Your task to perform on an android device: Go to Reddit.com Image 0: 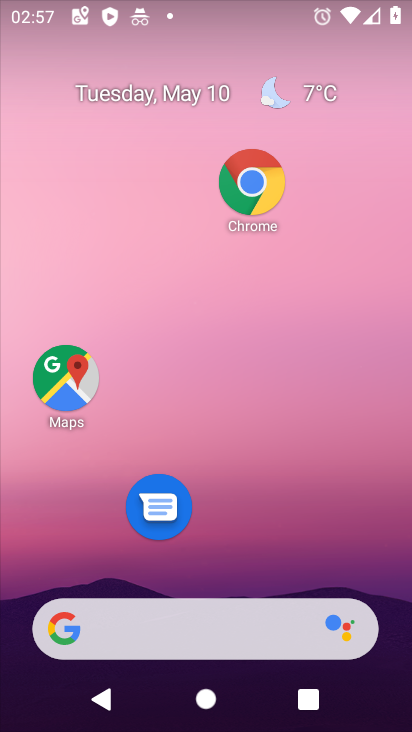
Step 0: click (278, 180)
Your task to perform on an android device: Go to Reddit.com Image 1: 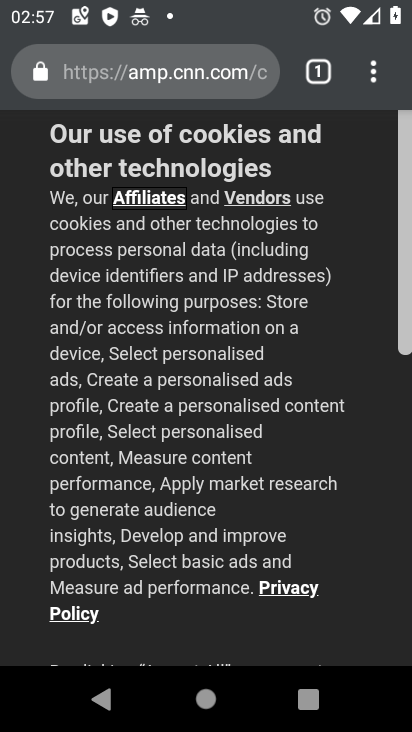
Step 1: click (230, 91)
Your task to perform on an android device: Go to Reddit.com Image 2: 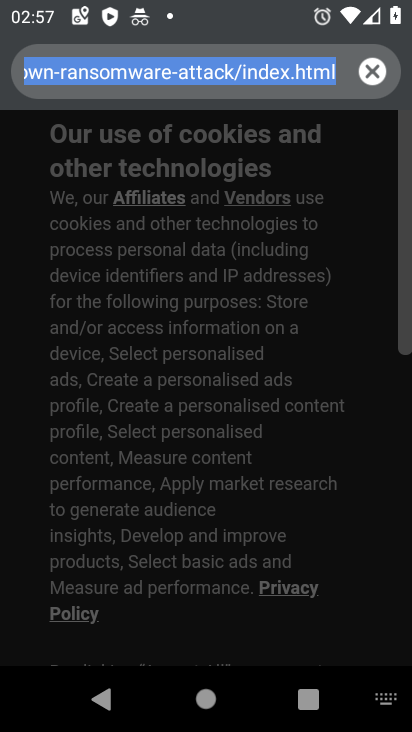
Step 2: type "reddit"
Your task to perform on an android device: Go to Reddit.com Image 3: 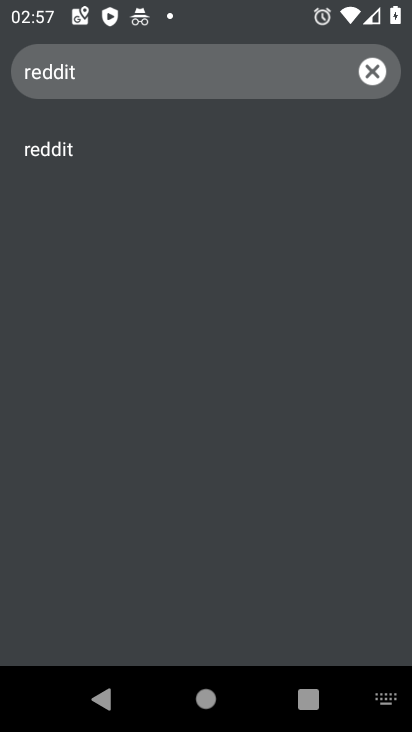
Step 3: click (198, 136)
Your task to perform on an android device: Go to Reddit.com Image 4: 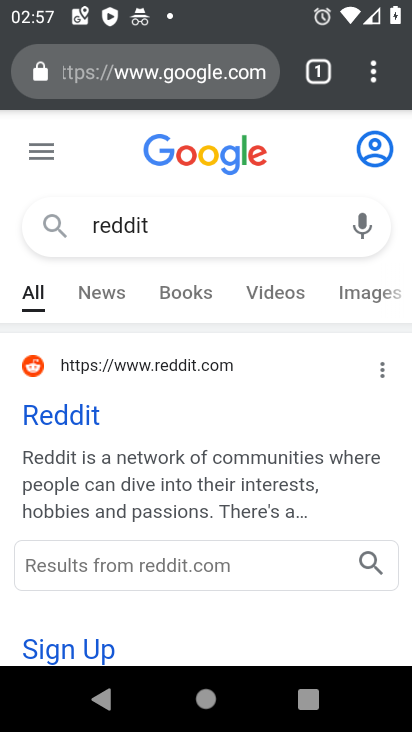
Step 4: click (41, 435)
Your task to perform on an android device: Go to Reddit.com Image 5: 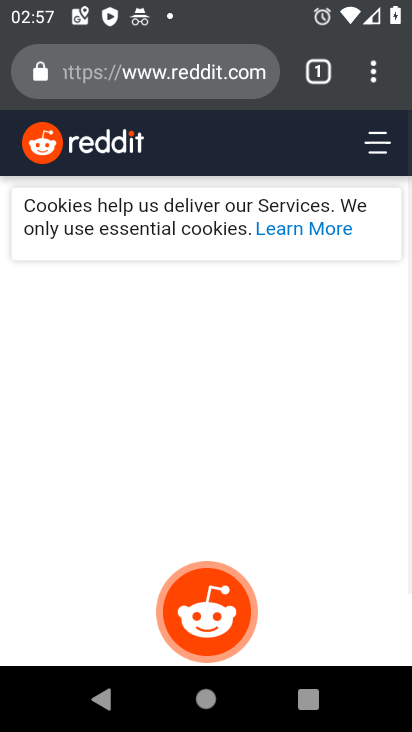
Step 5: task complete